Your task to perform on an android device: toggle priority inbox in the gmail app Image 0: 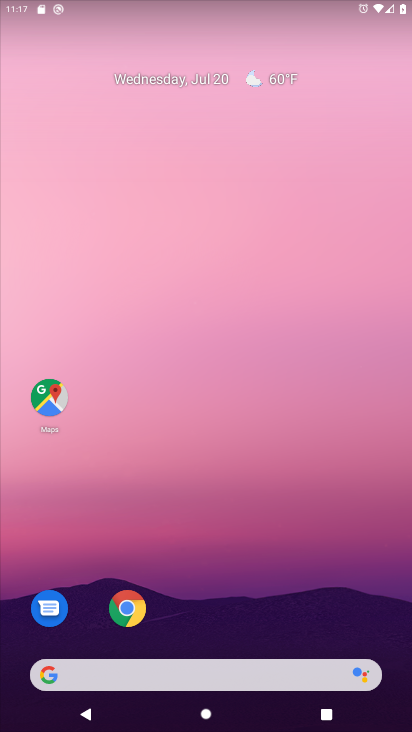
Step 0: drag from (252, 618) to (203, 74)
Your task to perform on an android device: toggle priority inbox in the gmail app Image 1: 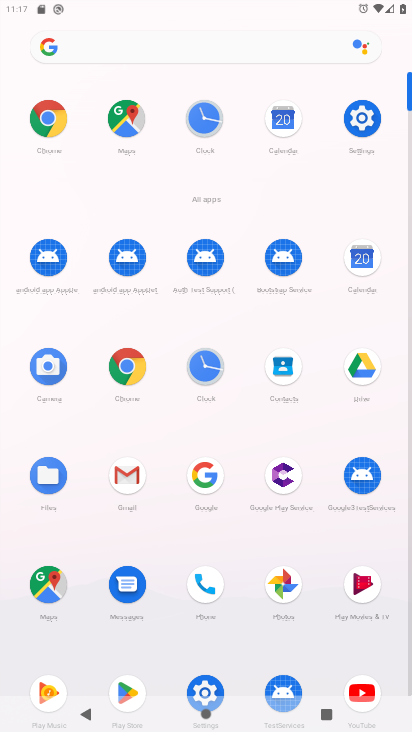
Step 1: click (124, 482)
Your task to perform on an android device: toggle priority inbox in the gmail app Image 2: 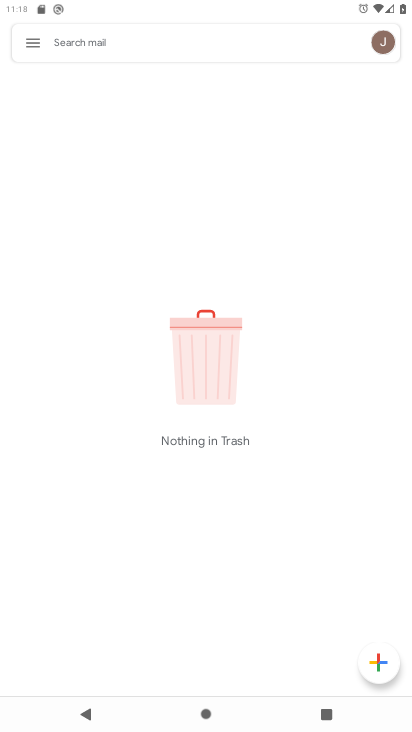
Step 2: click (33, 44)
Your task to perform on an android device: toggle priority inbox in the gmail app Image 3: 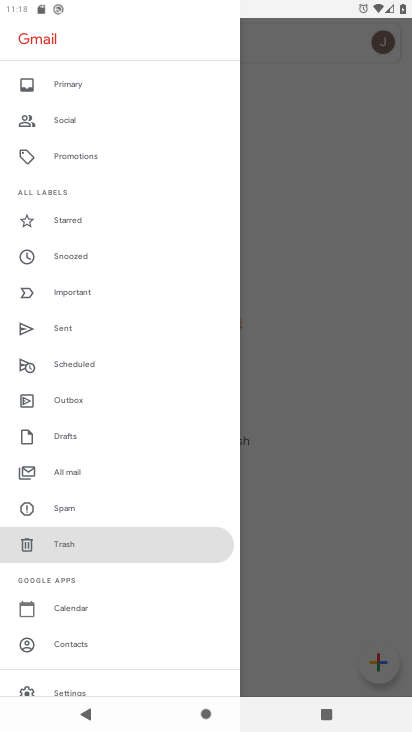
Step 3: click (105, 677)
Your task to perform on an android device: toggle priority inbox in the gmail app Image 4: 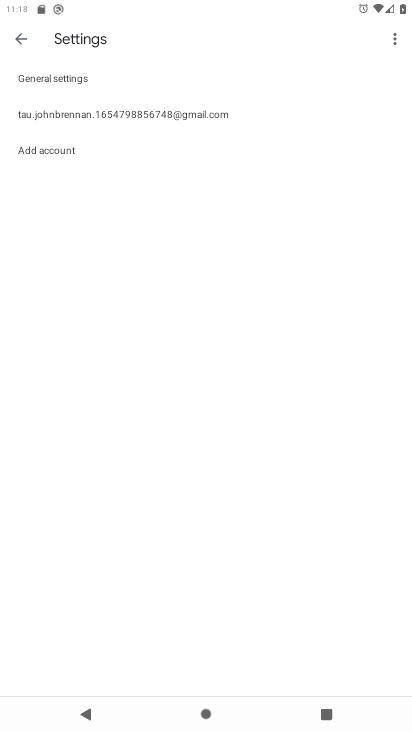
Step 4: click (227, 118)
Your task to perform on an android device: toggle priority inbox in the gmail app Image 5: 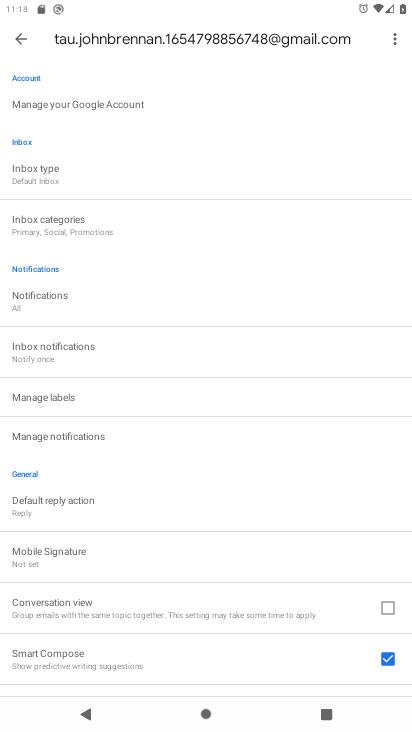
Step 5: click (111, 178)
Your task to perform on an android device: toggle priority inbox in the gmail app Image 6: 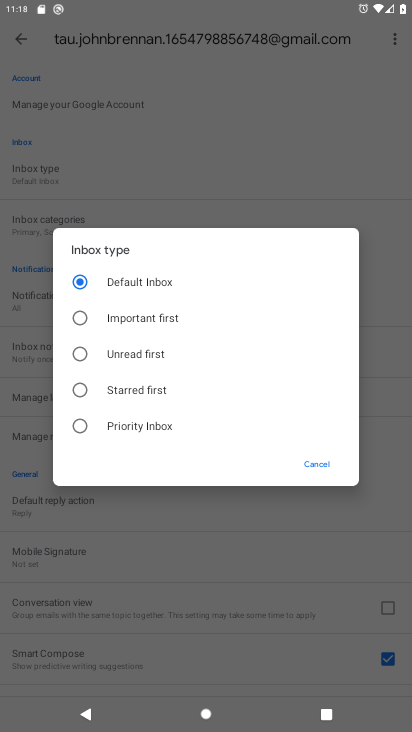
Step 6: click (147, 434)
Your task to perform on an android device: toggle priority inbox in the gmail app Image 7: 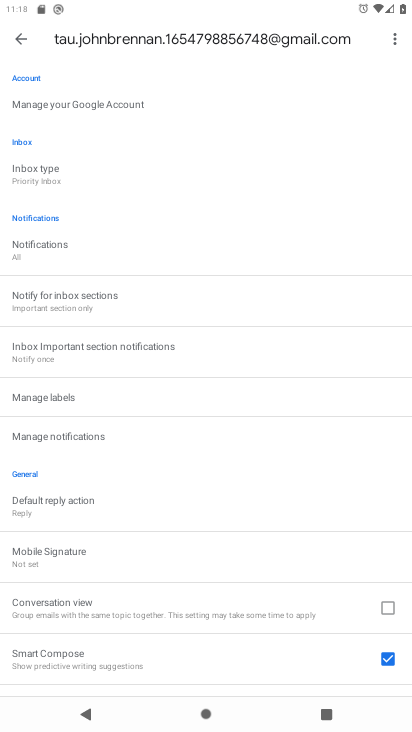
Step 7: task complete